Your task to perform on an android device: Open Google Image 0: 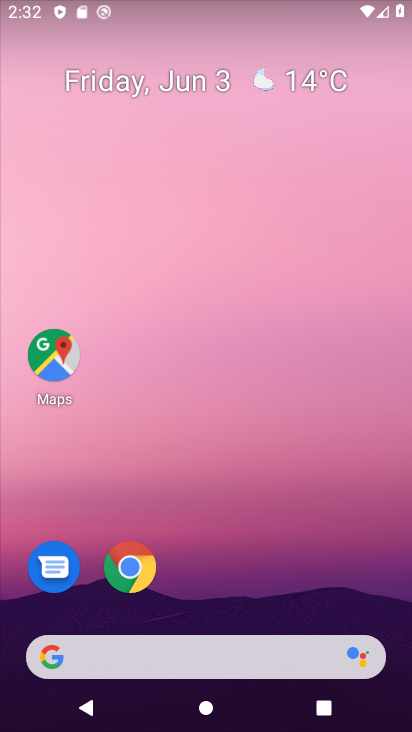
Step 0: click (48, 659)
Your task to perform on an android device: Open Google Image 1: 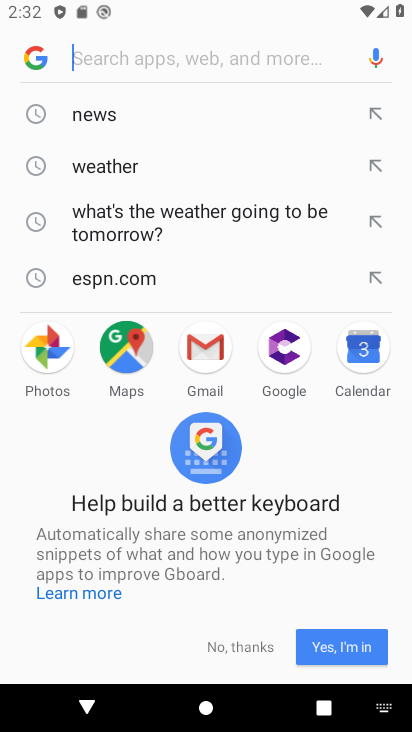
Step 1: click (227, 635)
Your task to perform on an android device: Open Google Image 2: 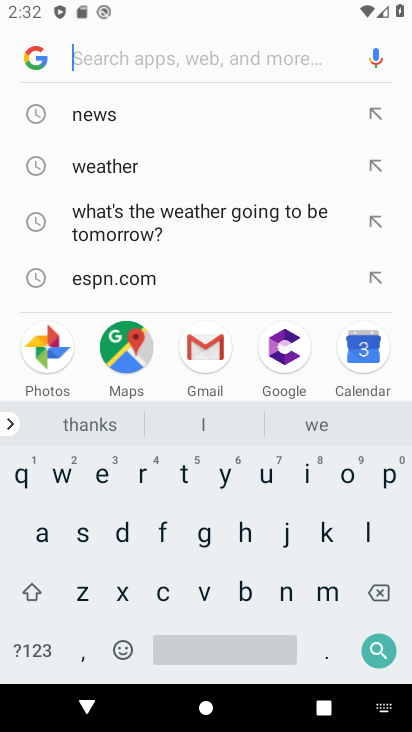
Step 2: click (29, 52)
Your task to perform on an android device: Open Google Image 3: 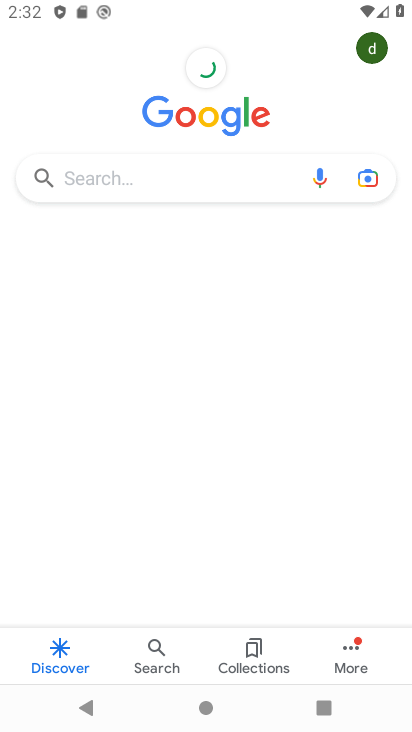
Step 3: task complete